Your task to perform on an android device: toggle show notifications on the lock screen Image 0: 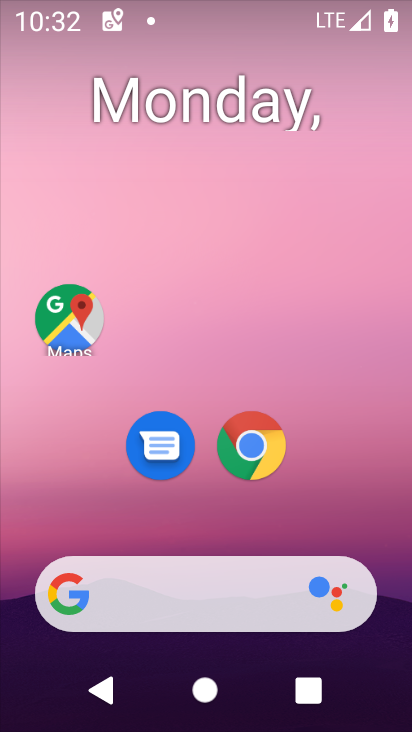
Step 0: drag from (253, 656) to (254, 6)
Your task to perform on an android device: toggle show notifications on the lock screen Image 1: 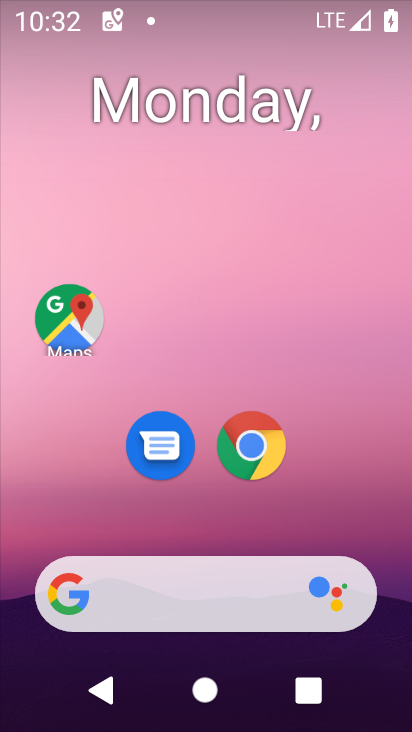
Step 1: drag from (301, 414) to (364, 13)
Your task to perform on an android device: toggle show notifications on the lock screen Image 2: 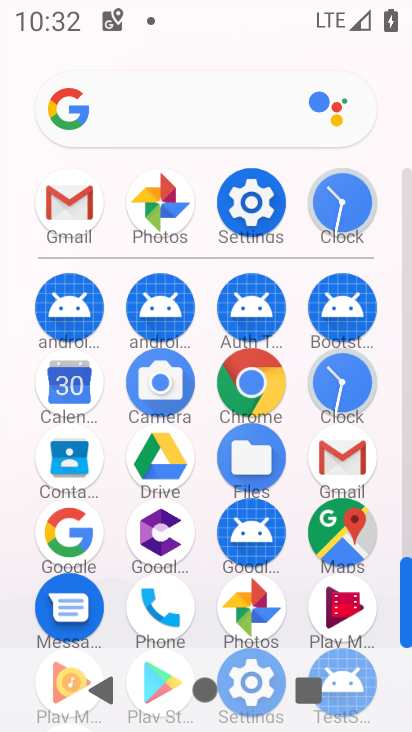
Step 2: click (260, 202)
Your task to perform on an android device: toggle show notifications on the lock screen Image 3: 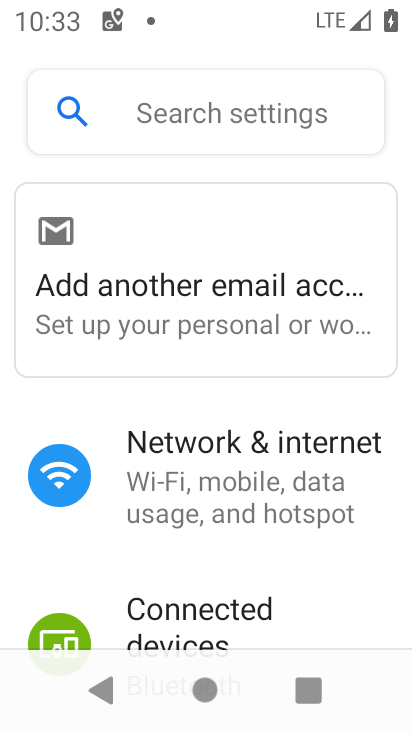
Step 3: drag from (215, 524) to (285, 28)
Your task to perform on an android device: toggle show notifications on the lock screen Image 4: 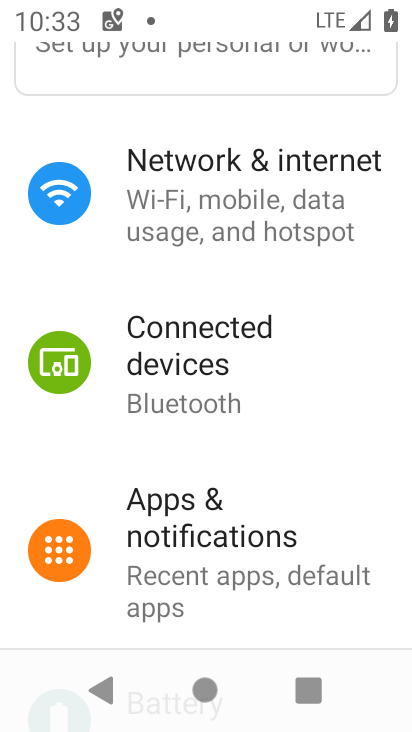
Step 4: drag from (266, 597) to (289, 174)
Your task to perform on an android device: toggle show notifications on the lock screen Image 5: 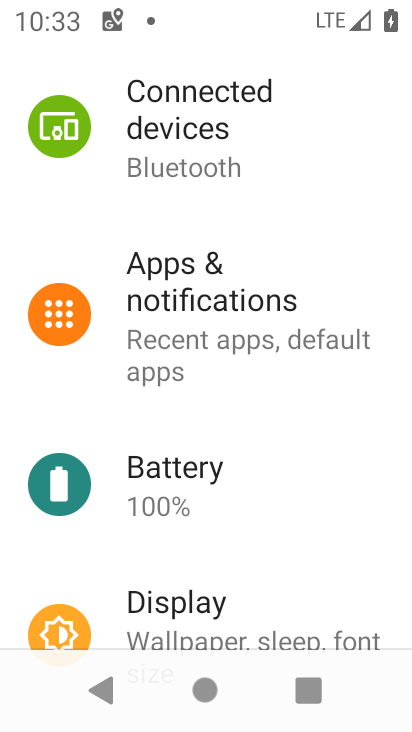
Step 5: click (250, 329)
Your task to perform on an android device: toggle show notifications on the lock screen Image 6: 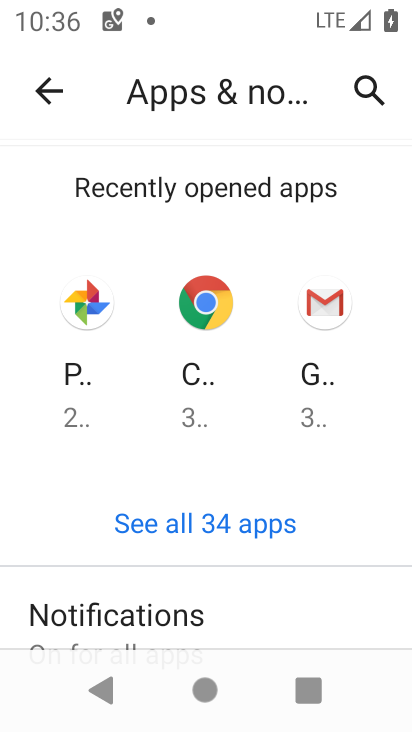
Step 6: click (226, 50)
Your task to perform on an android device: toggle show notifications on the lock screen Image 7: 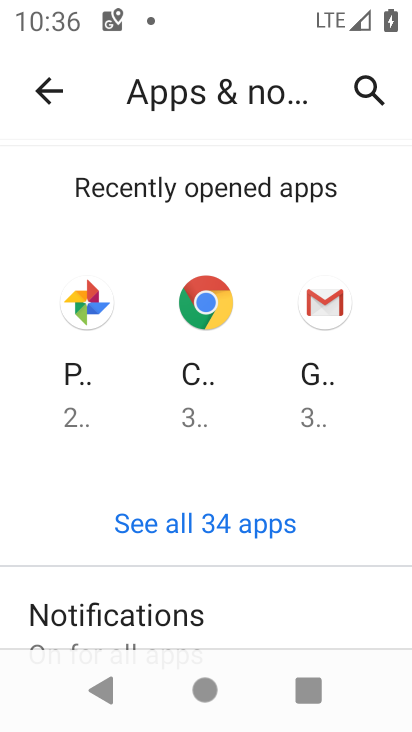
Step 7: drag from (253, 583) to (323, 0)
Your task to perform on an android device: toggle show notifications on the lock screen Image 8: 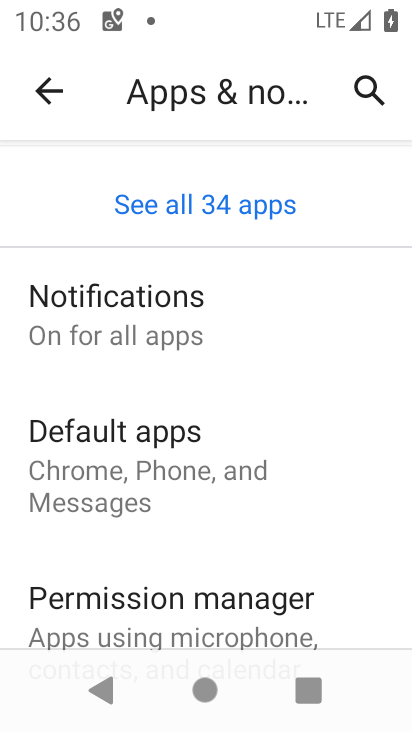
Step 8: click (186, 304)
Your task to perform on an android device: toggle show notifications on the lock screen Image 9: 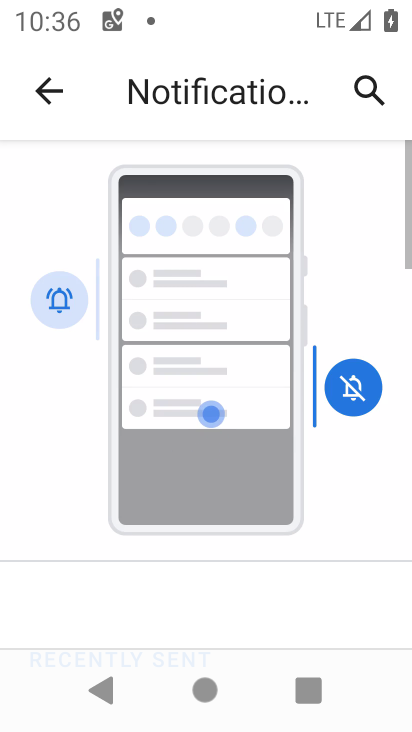
Step 9: drag from (269, 573) to (300, 34)
Your task to perform on an android device: toggle show notifications on the lock screen Image 10: 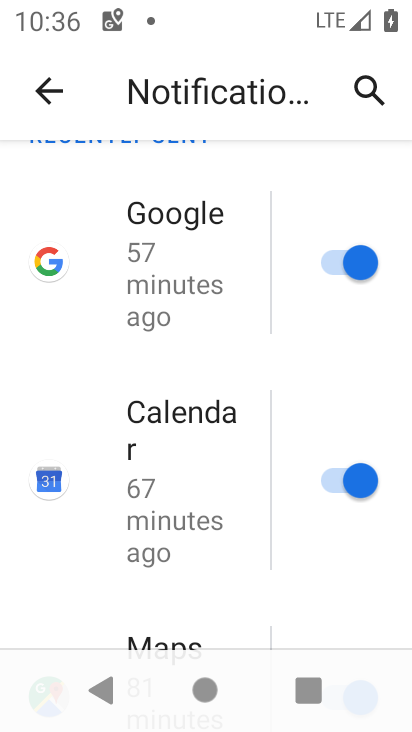
Step 10: drag from (242, 377) to (193, 60)
Your task to perform on an android device: toggle show notifications on the lock screen Image 11: 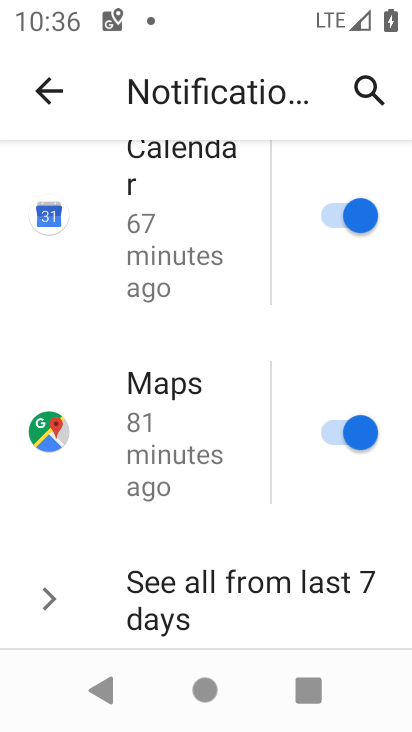
Step 11: drag from (240, 573) to (174, 155)
Your task to perform on an android device: toggle show notifications on the lock screen Image 12: 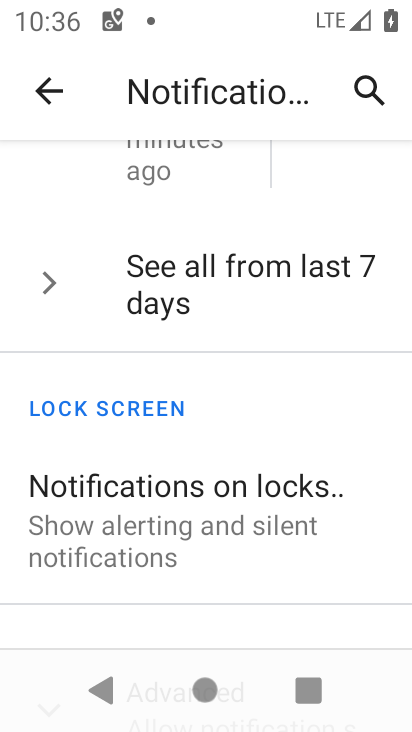
Step 12: click (198, 518)
Your task to perform on an android device: toggle show notifications on the lock screen Image 13: 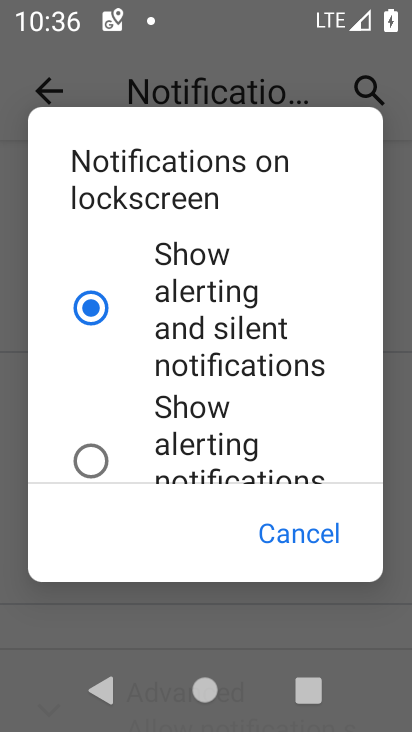
Step 13: task complete